Your task to perform on an android device: all mails in gmail Image 0: 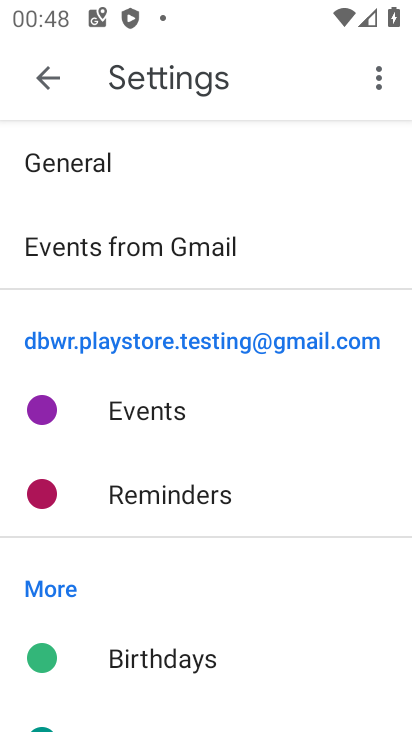
Step 0: press home button
Your task to perform on an android device: all mails in gmail Image 1: 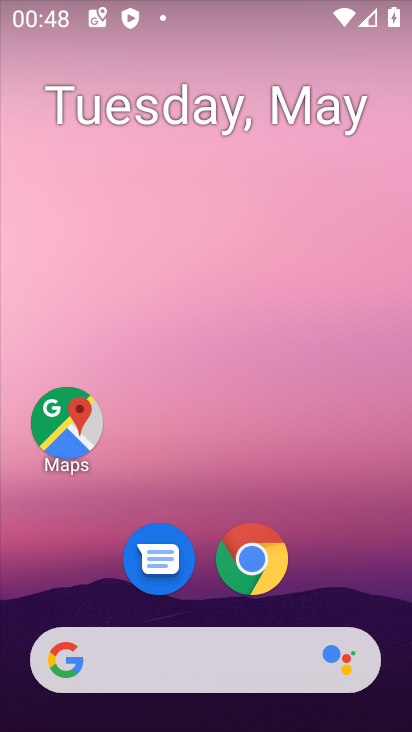
Step 1: drag from (314, 543) to (261, 220)
Your task to perform on an android device: all mails in gmail Image 2: 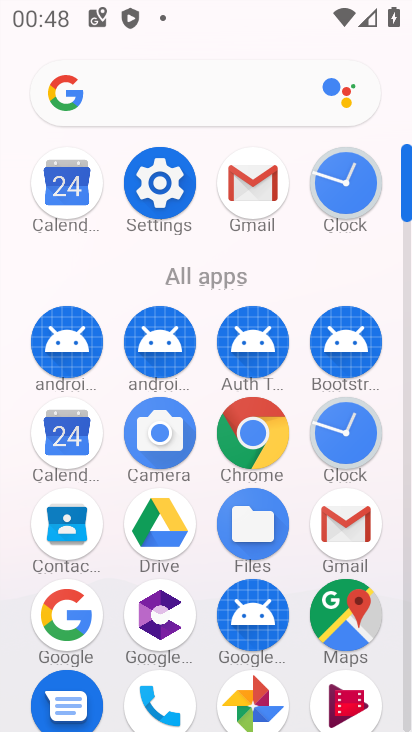
Step 2: click (214, 186)
Your task to perform on an android device: all mails in gmail Image 3: 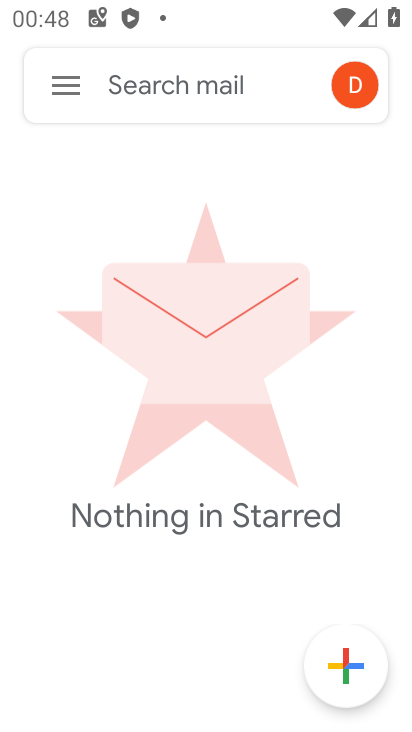
Step 3: click (75, 97)
Your task to perform on an android device: all mails in gmail Image 4: 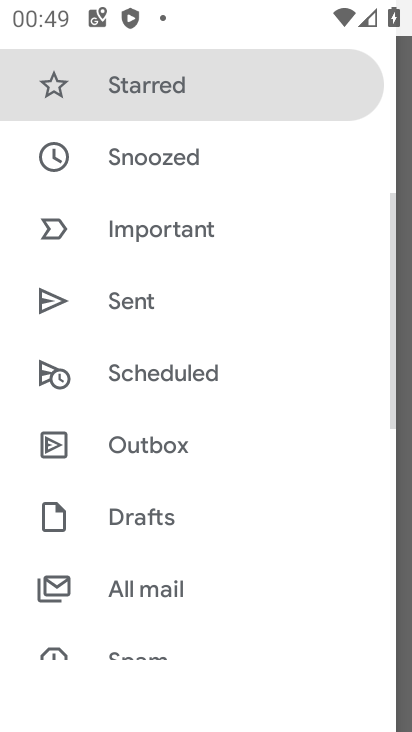
Step 4: drag from (194, 166) to (195, 501)
Your task to perform on an android device: all mails in gmail Image 5: 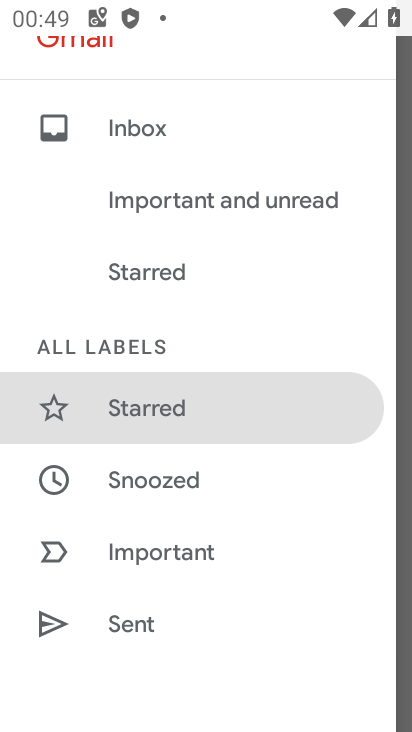
Step 5: click (170, 122)
Your task to perform on an android device: all mails in gmail Image 6: 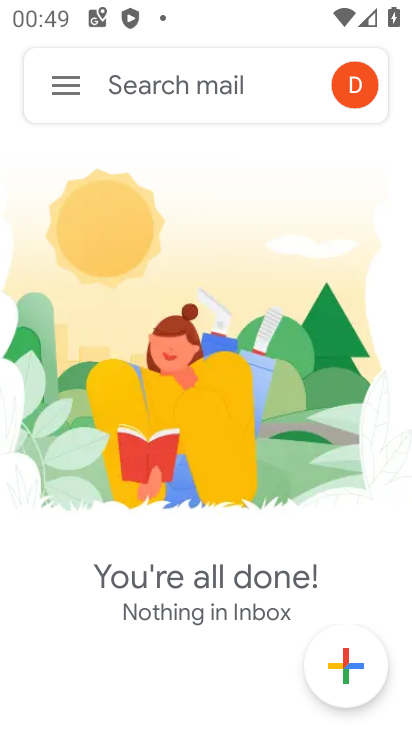
Step 6: click (63, 98)
Your task to perform on an android device: all mails in gmail Image 7: 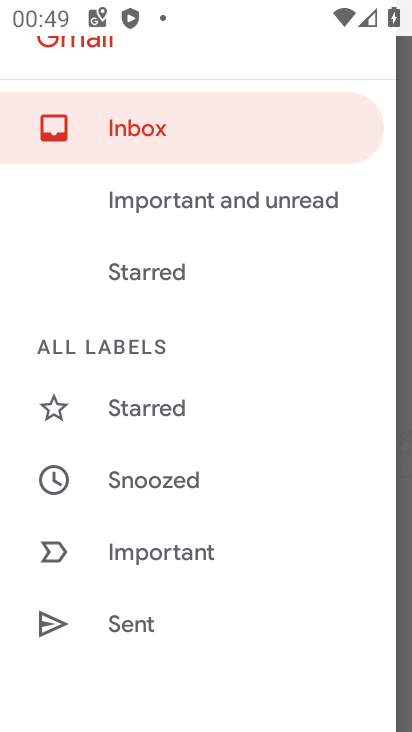
Step 7: drag from (175, 480) to (195, 166)
Your task to perform on an android device: all mails in gmail Image 8: 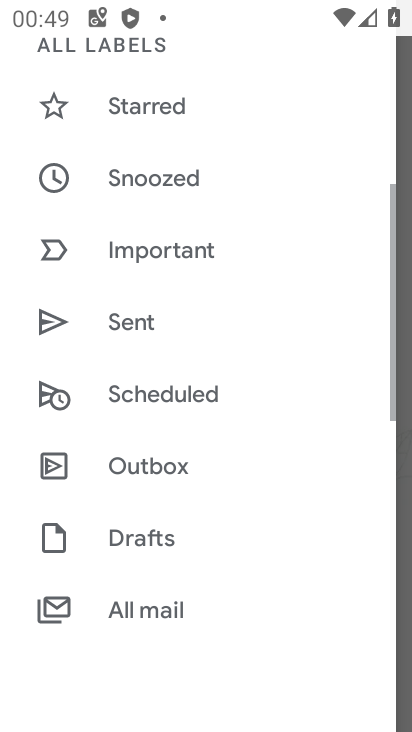
Step 8: drag from (236, 404) to (228, 80)
Your task to perform on an android device: all mails in gmail Image 9: 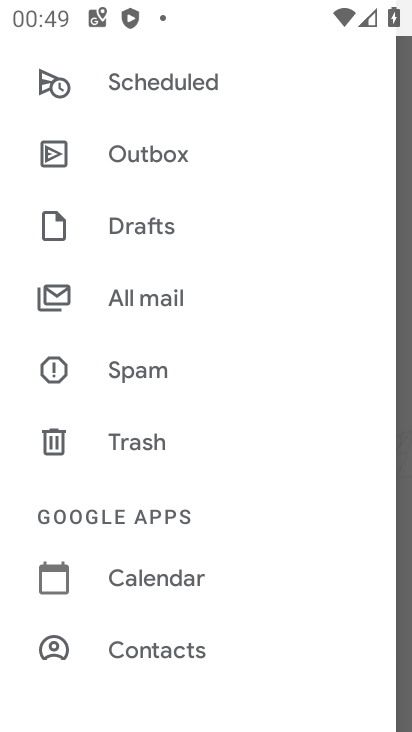
Step 9: click (155, 288)
Your task to perform on an android device: all mails in gmail Image 10: 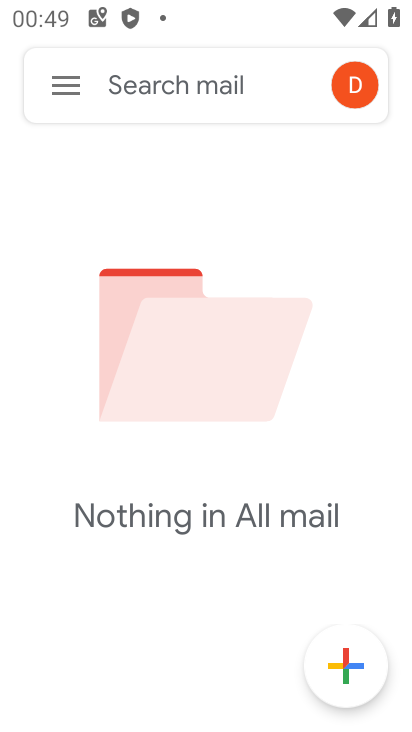
Step 10: task complete